Your task to perform on an android device: Open the Play Movies app and select the watchlist tab. Image 0: 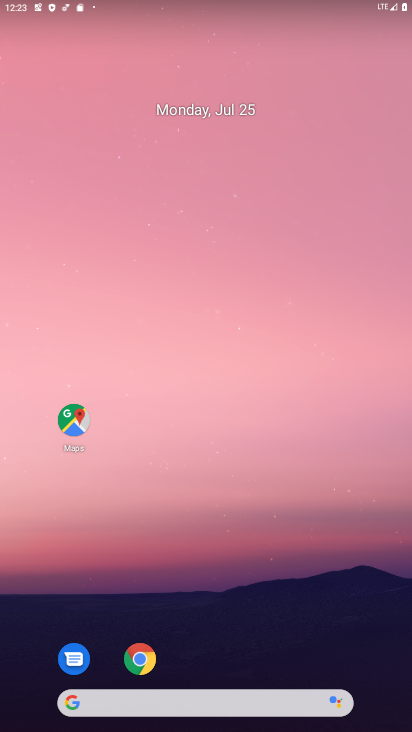
Step 0: drag from (41, 693) to (150, 251)
Your task to perform on an android device: Open the Play Movies app and select the watchlist tab. Image 1: 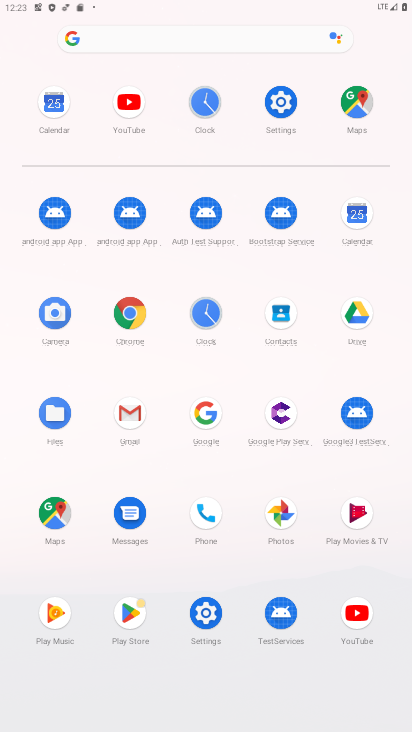
Step 1: click (354, 516)
Your task to perform on an android device: Open the Play Movies app and select the watchlist tab. Image 2: 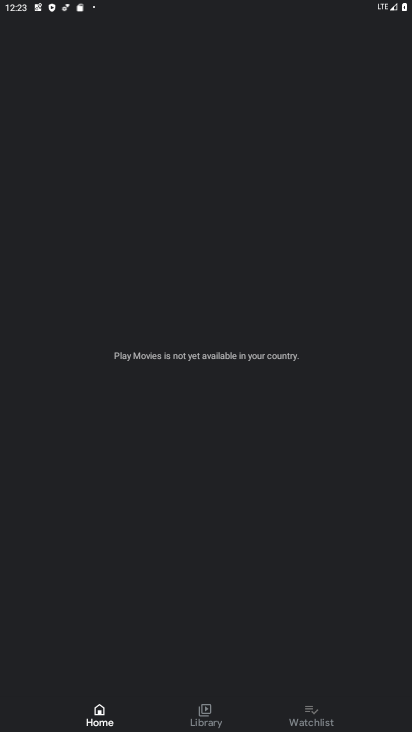
Step 2: click (306, 713)
Your task to perform on an android device: Open the Play Movies app and select the watchlist tab. Image 3: 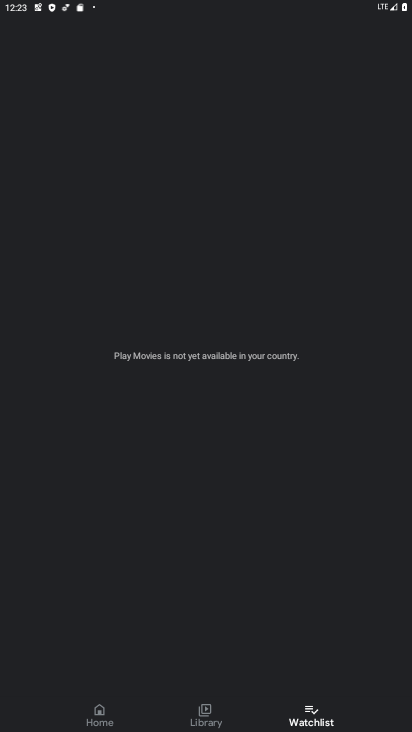
Step 3: task complete